Your task to perform on an android device: turn on wifi Image 0: 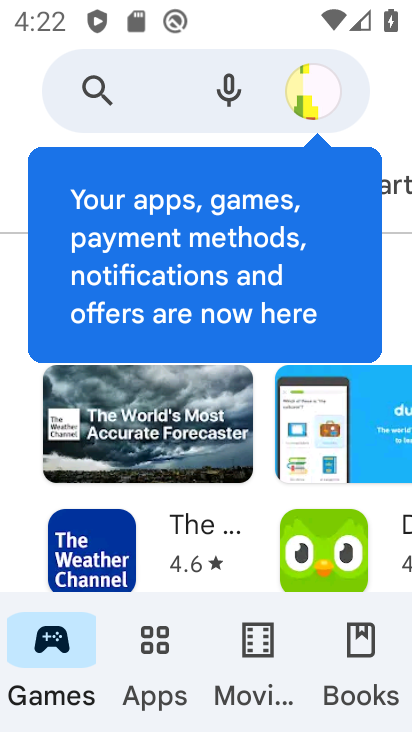
Step 0: press home button
Your task to perform on an android device: turn on wifi Image 1: 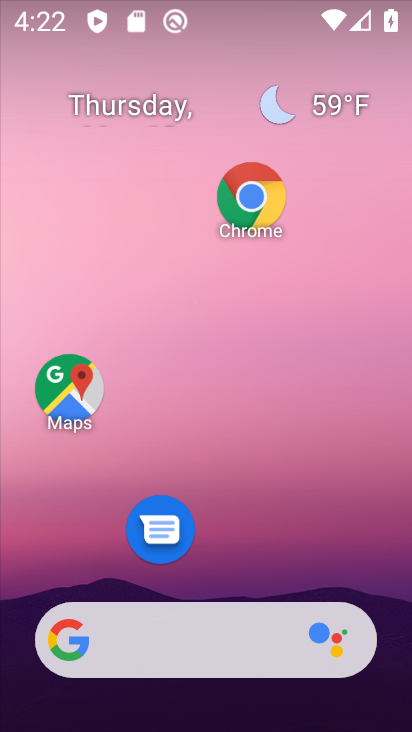
Step 1: task complete